Your task to perform on an android device: Search for seafood restaurants on Google Maps Image 0: 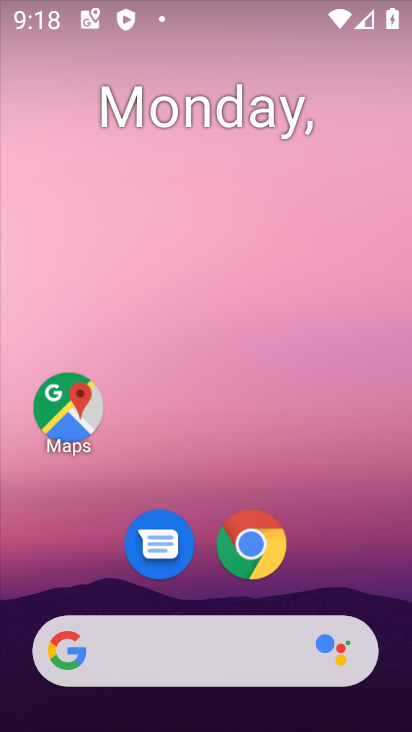
Step 0: click (63, 403)
Your task to perform on an android device: Search for seafood restaurants on Google Maps Image 1: 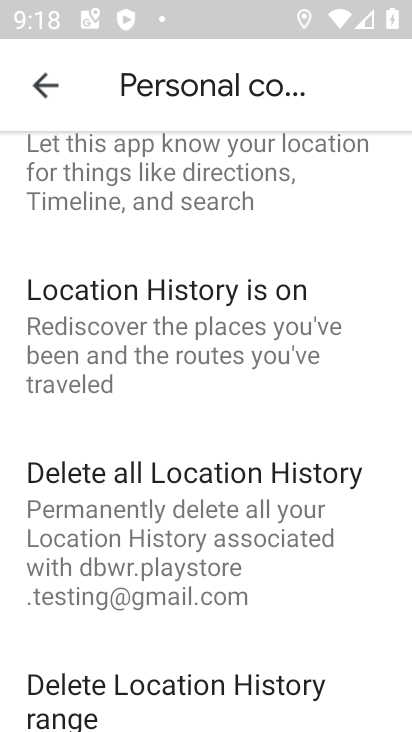
Step 1: click (41, 79)
Your task to perform on an android device: Search for seafood restaurants on Google Maps Image 2: 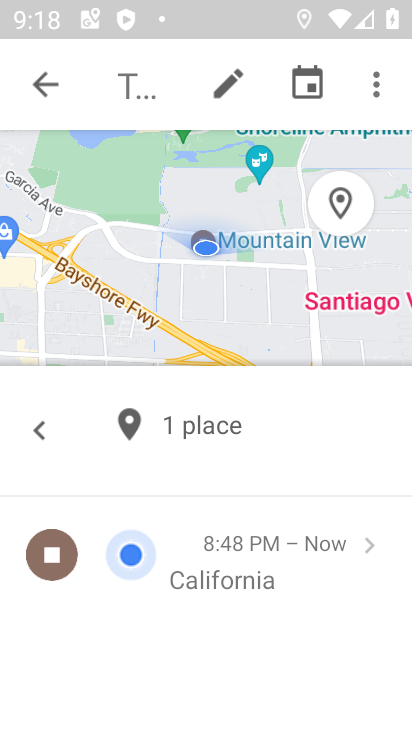
Step 2: click (41, 79)
Your task to perform on an android device: Search for seafood restaurants on Google Maps Image 3: 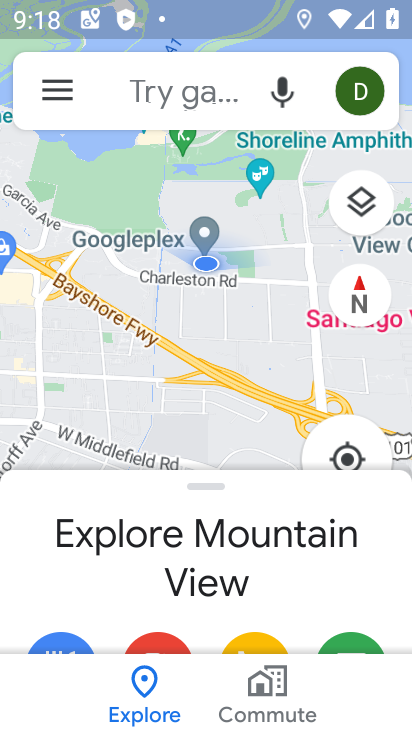
Step 3: task complete